Your task to perform on an android device: toggle location history Image 0: 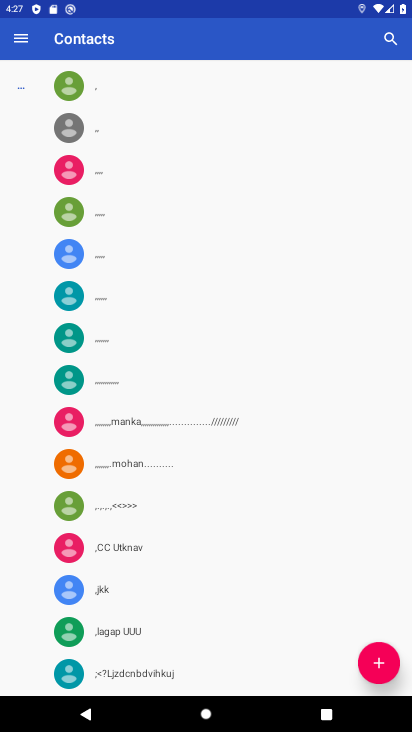
Step 0: press back button
Your task to perform on an android device: toggle location history Image 1: 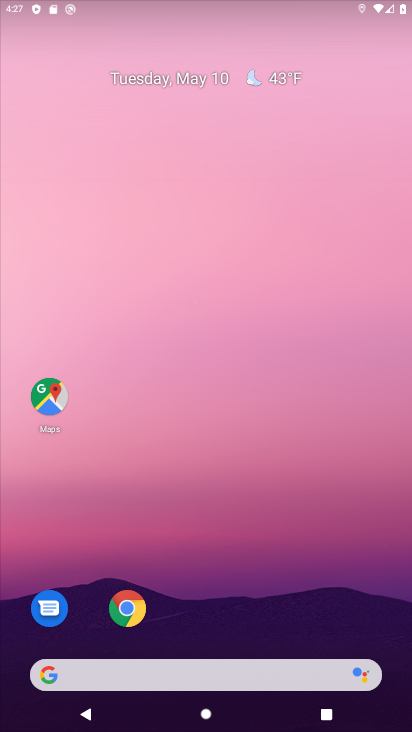
Step 1: drag from (246, 605) to (310, 34)
Your task to perform on an android device: toggle location history Image 2: 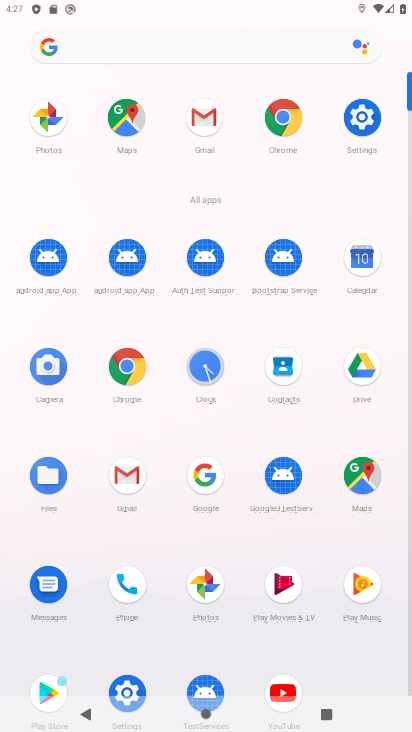
Step 2: click (363, 116)
Your task to perform on an android device: toggle location history Image 3: 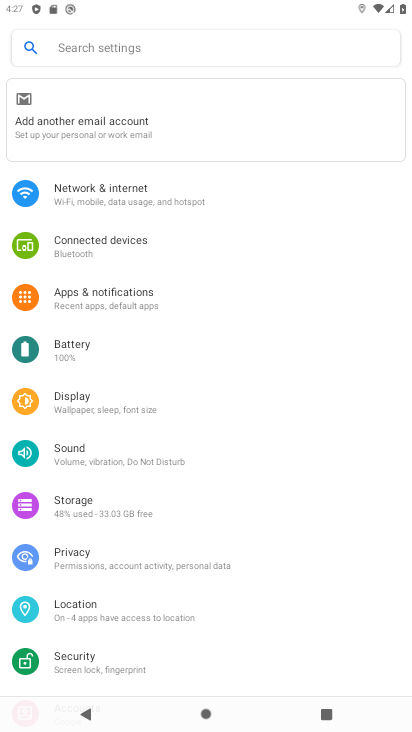
Step 3: drag from (93, 509) to (121, 325)
Your task to perform on an android device: toggle location history Image 4: 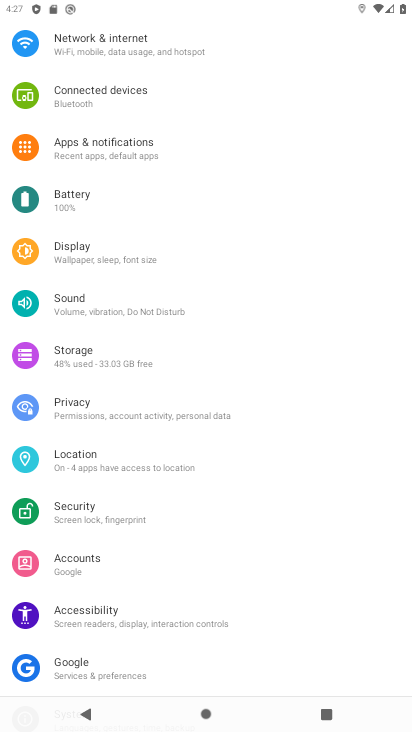
Step 4: click (91, 465)
Your task to perform on an android device: toggle location history Image 5: 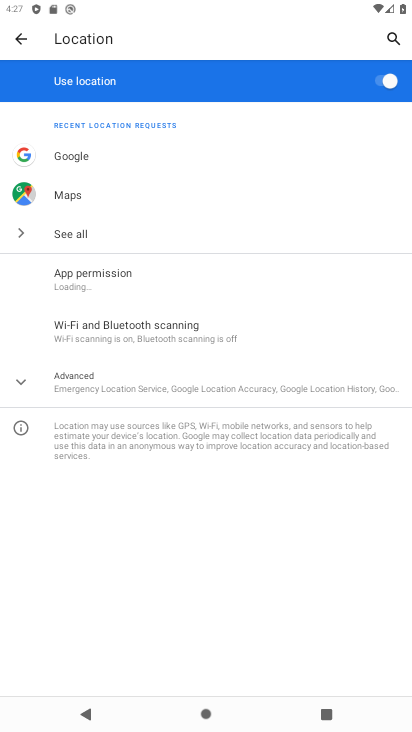
Step 5: click (95, 389)
Your task to perform on an android device: toggle location history Image 6: 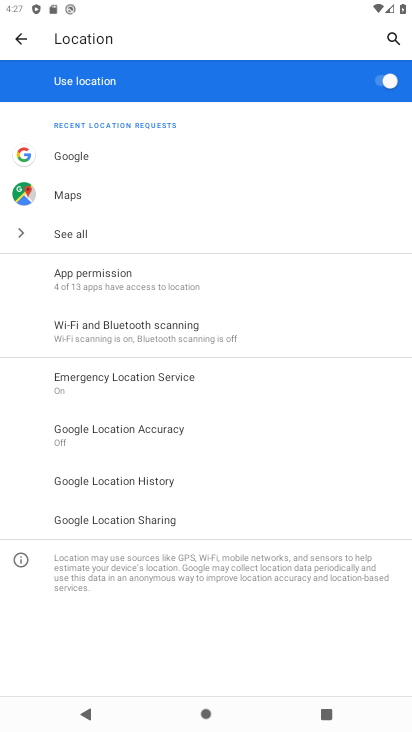
Step 6: click (136, 480)
Your task to perform on an android device: toggle location history Image 7: 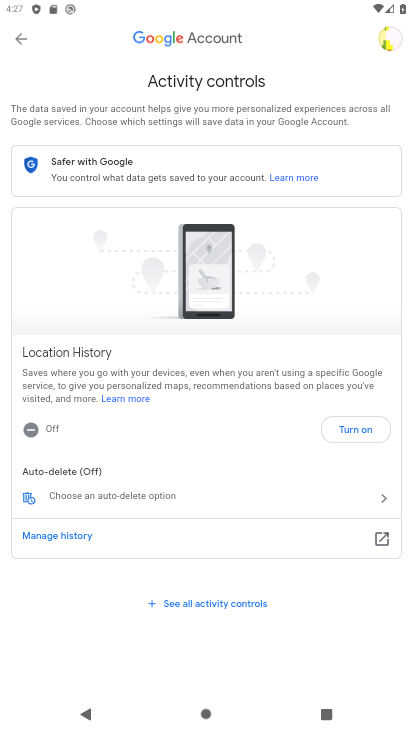
Step 7: click (352, 424)
Your task to perform on an android device: toggle location history Image 8: 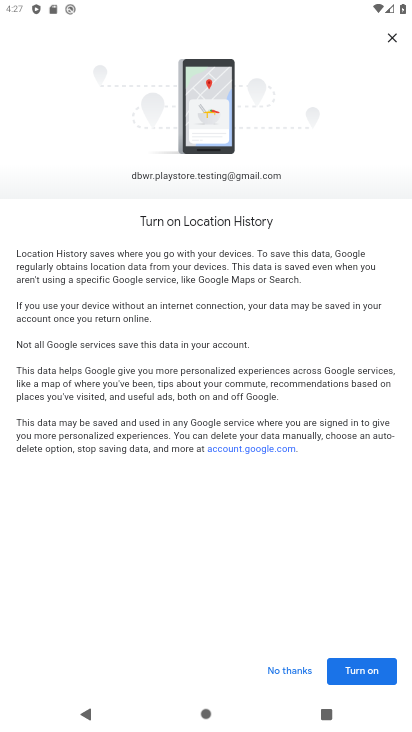
Step 8: click (360, 671)
Your task to perform on an android device: toggle location history Image 9: 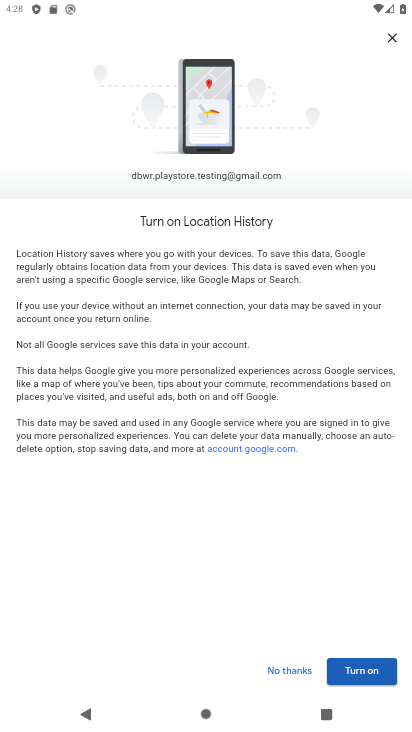
Step 9: drag from (217, 545) to (279, 115)
Your task to perform on an android device: toggle location history Image 10: 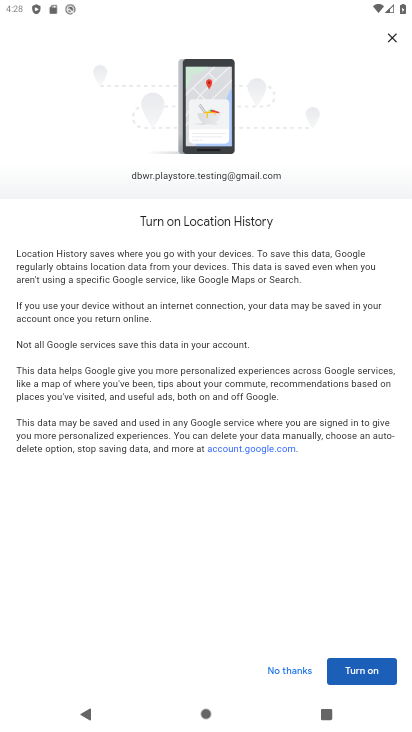
Step 10: click (358, 664)
Your task to perform on an android device: toggle location history Image 11: 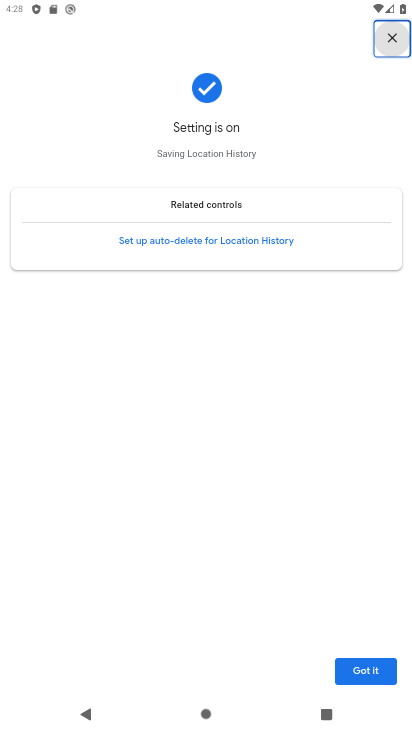
Step 11: click (354, 665)
Your task to perform on an android device: toggle location history Image 12: 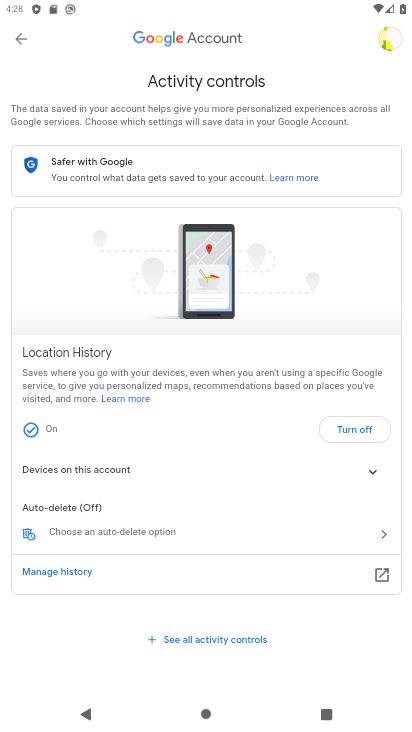
Step 12: task complete